Your task to perform on an android device: open a bookmark in the chrome app Image 0: 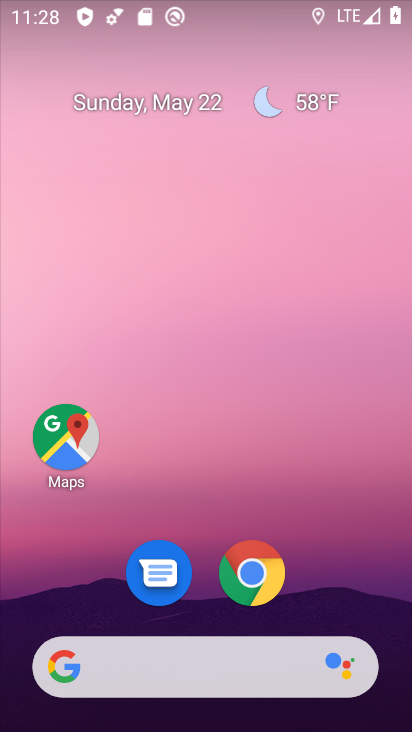
Step 0: drag from (205, 614) to (229, 221)
Your task to perform on an android device: open a bookmark in the chrome app Image 1: 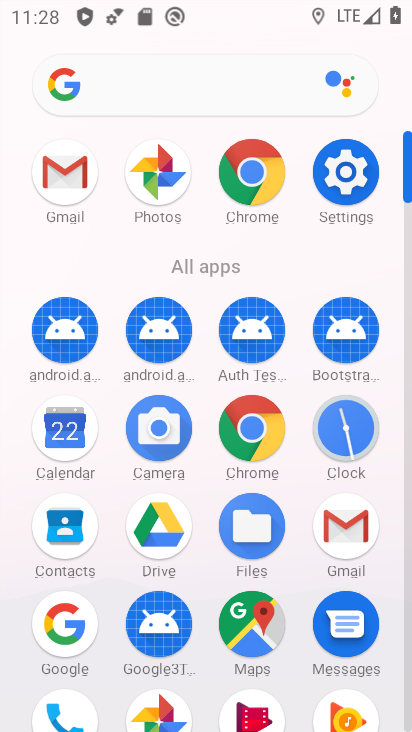
Step 1: click (240, 187)
Your task to perform on an android device: open a bookmark in the chrome app Image 2: 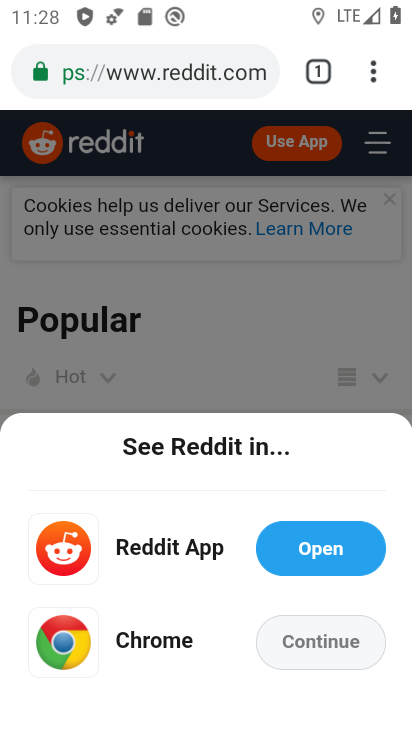
Step 2: click (373, 73)
Your task to perform on an android device: open a bookmark in the chrome app Image 3: 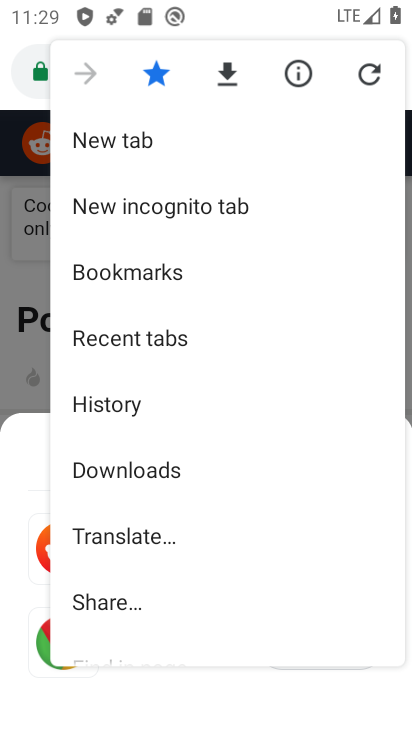
Step 3: click (168, 280)
Your task to perform on an android device: open a bookmark in the chrome app Image 4: 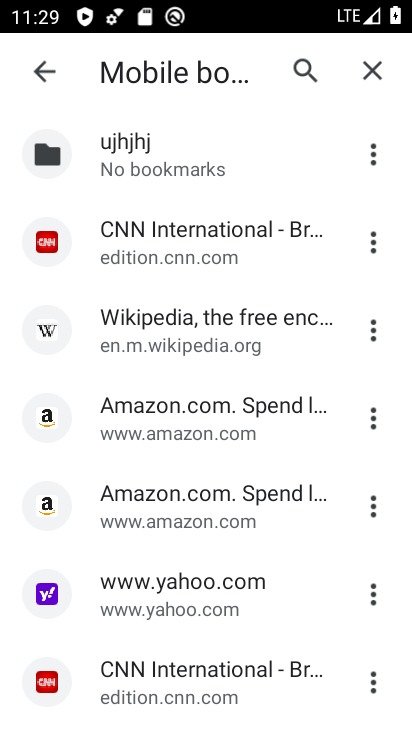
Step 4: click (175, 507)
Your task to perform on an android device: open a bookmark in the chrome app Image 5: 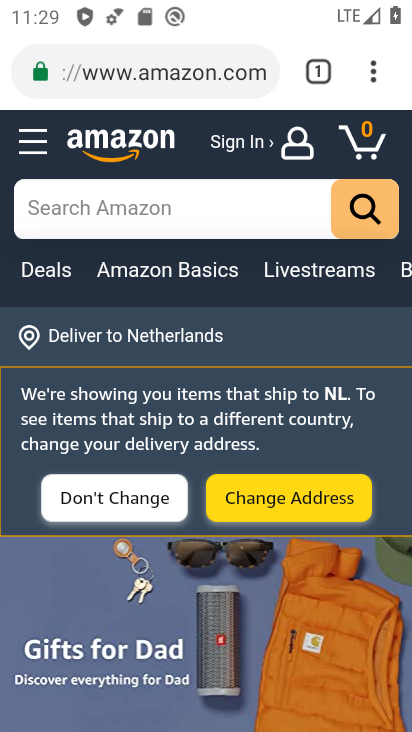
Step 5: task complete